Your task to perform on an android device: Go to wifi settings Image 0: 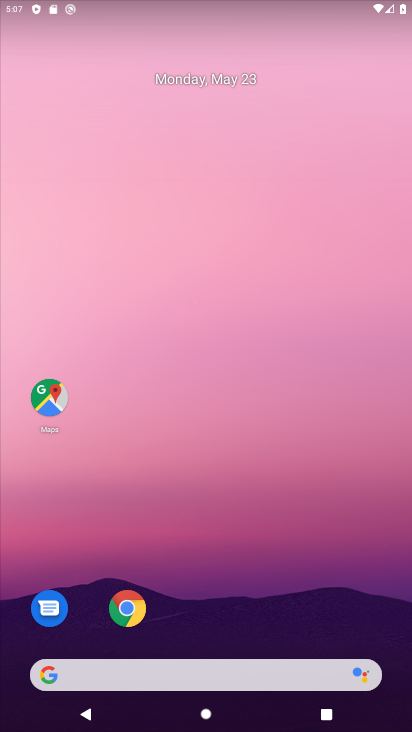
Step 0: drag from (181, 614) to (250, 81)
Your task to perform on an android device: Go to wifi settings Image 1: 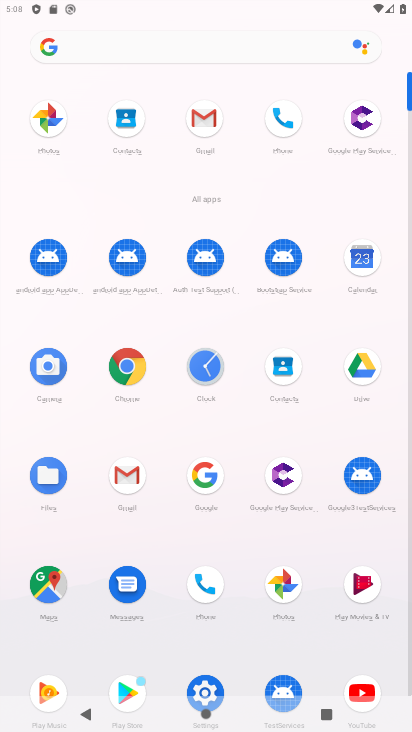
Step 1: click (203, 685)
Your task to perform on an android device: Go to wifi settings Image 2: 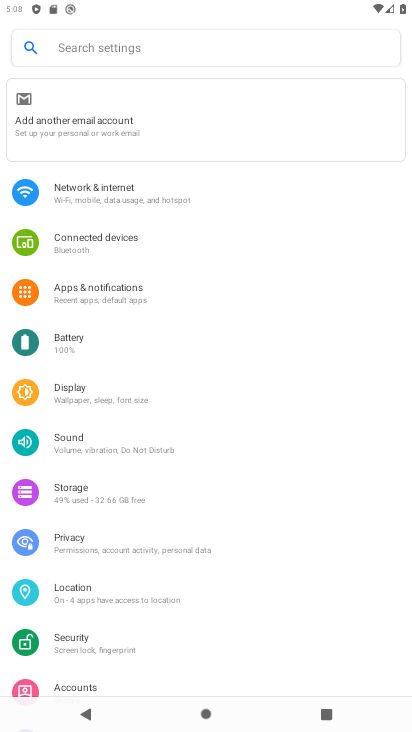
Step 2: click (107, 188)
Your task to perform on an android device: Go to wifi settings Image 3: 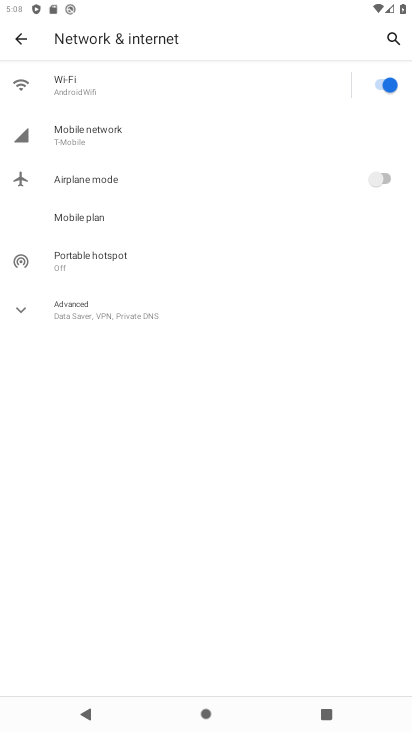
Step 3: click (129, 81)
Your task to perform on an android device: Go to wifi settings Image 4: 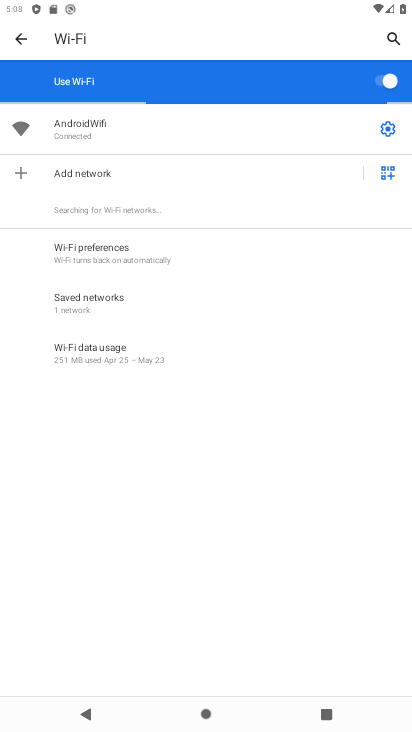
Step 4: task complete